Your task to perform on an android device: Do I have any events tomorrow? Image 0: 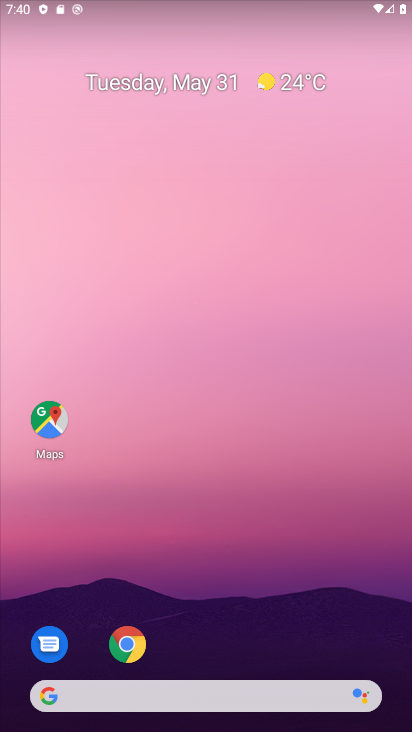
Step 0: drag from (240, 600) to (285, 222)
Your task to perform on an android device: Do I have any events tomorrow? Image 1: 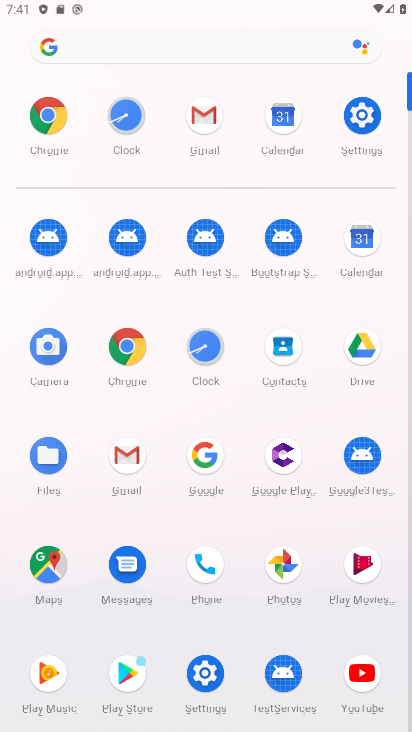
Step 1: click (361, 244)
Your task to perform on an android device: Do I have any events tomorrow? Image 2: 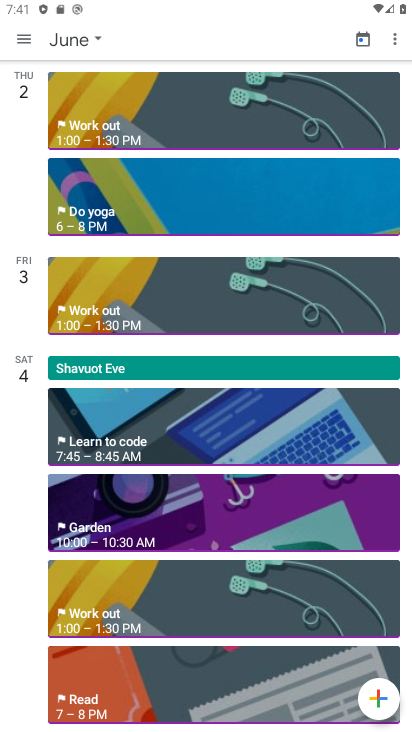
Step 2: task complete